Your task to perform on an android device: check battery use Image 0: 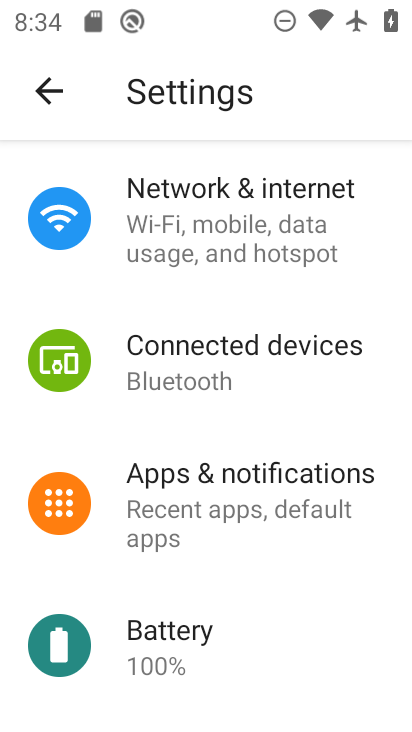
Step 0: click (145, 613)
Your task to perform on an android device: check battery use Image 1: 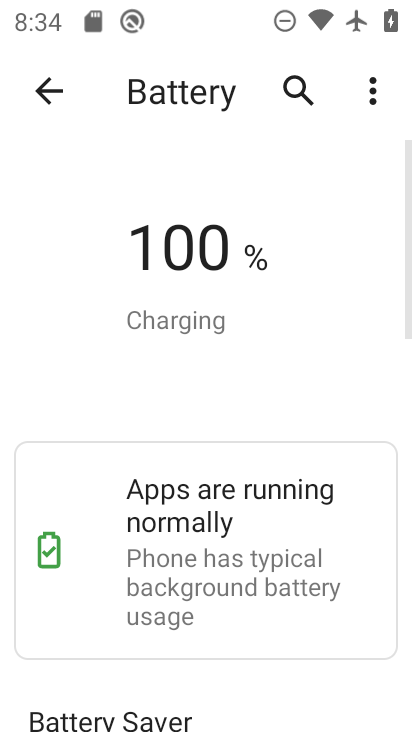
Step 1: task complete